Your task to perform on an android device: turn off priority inbox in the gmail app Image 0: 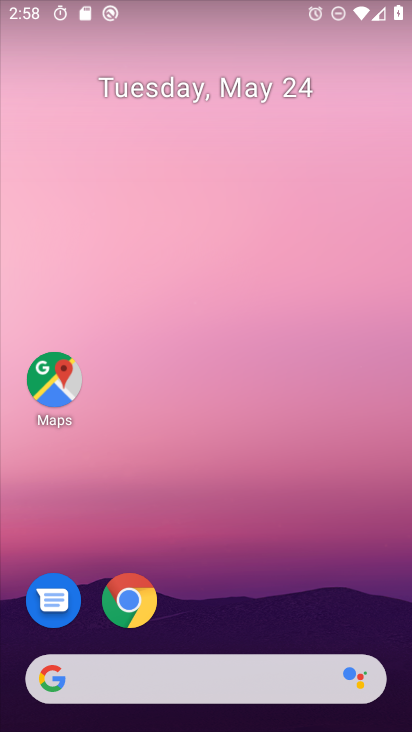
Step 0: drag from (291, 611) to (281, 180)
Your task to perform on an android device: turn off priority inbox in the gmail app Image 1: 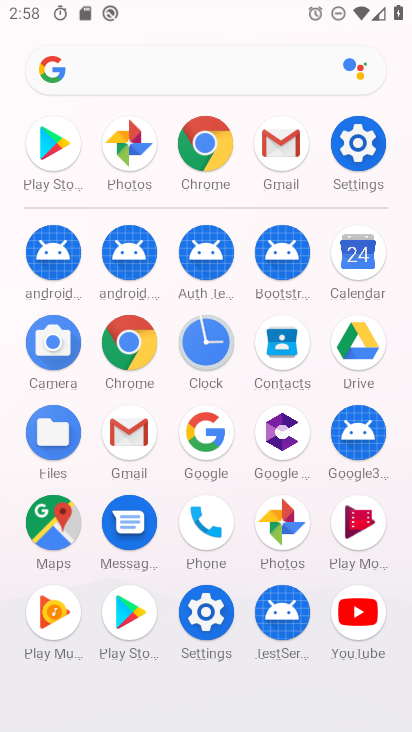
Step 1: click (276, 149)
Your task to perform on an android device: turn off priority inbox in the gmail app Image 2: 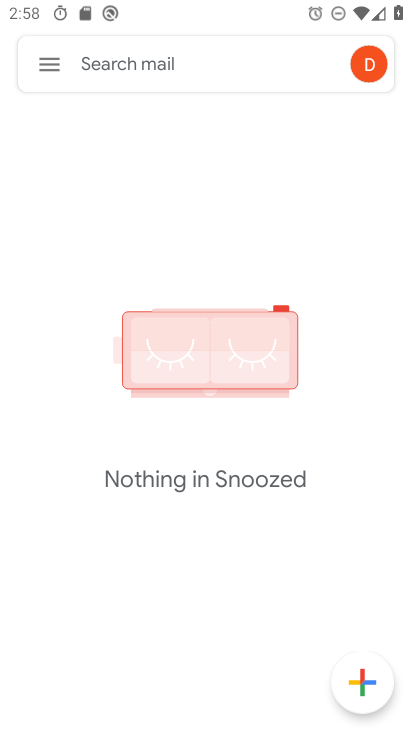
Step 2: click (44, 63)
Your task to perform on an android device: turn off priority inbox in the gmail app Image 3: 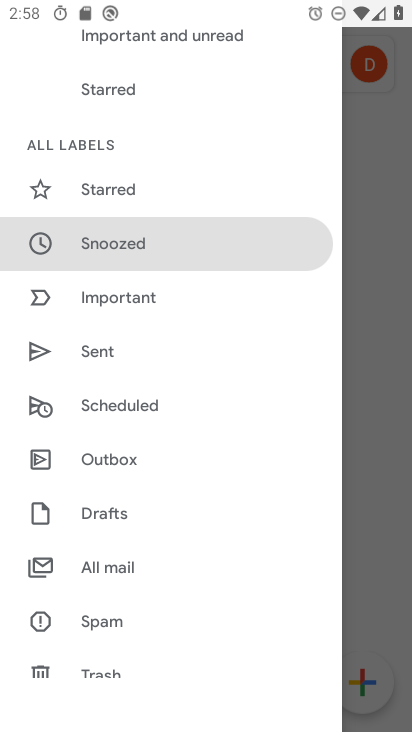
Step 3: drag from (210, 596) to (229, 213)
Your task to perform on an android device: turn off priority inbox in the gmail app Image 4: 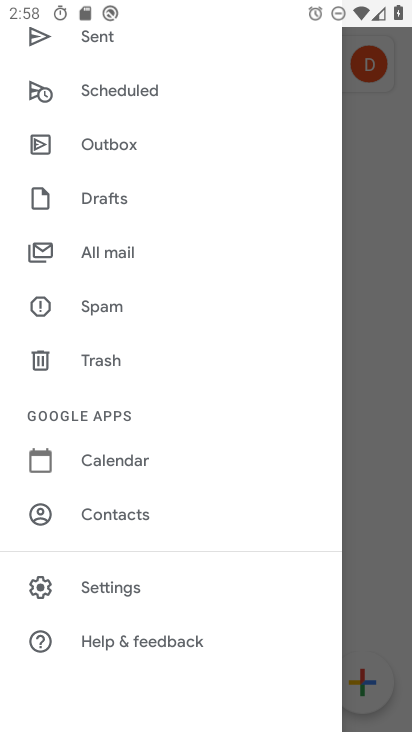
Step 4: click (103, 588)
Your task to perform on an android device: turn off priority inbox in the gmail app Image 5: 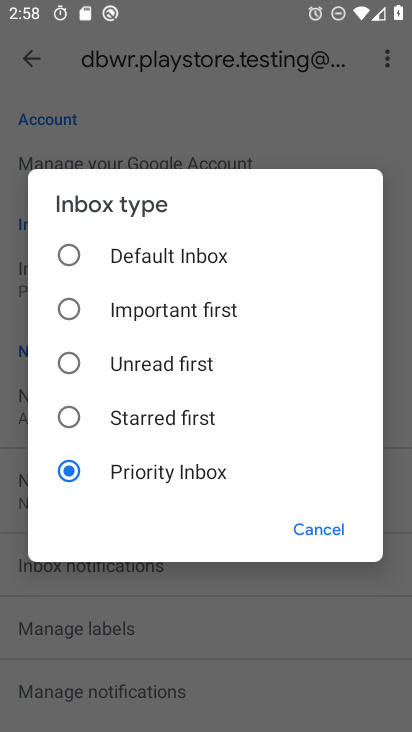
Step 5: task complete